Your task to perform on an android device: Go to location settings Image 0: 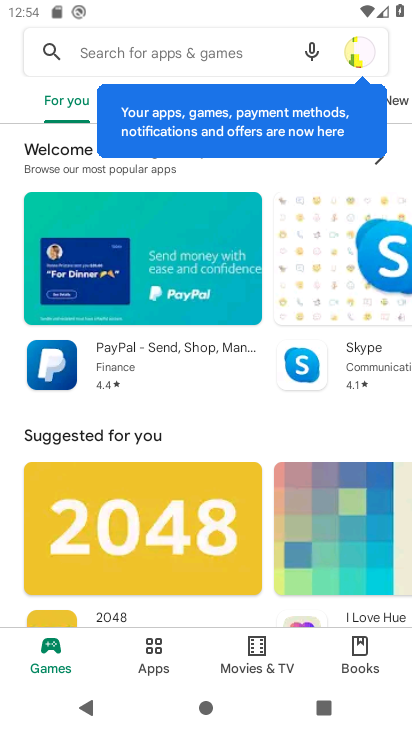
Step 0: press home button
Your task to perform on an android device: Go to location settings Image 1: 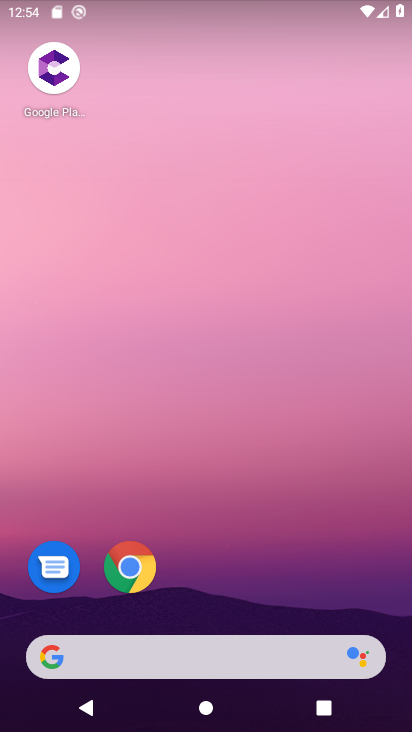
Step 1: drag from (250, 586) to (280, 182)
Your task to perform on an android device: Go to location settings Image 2: 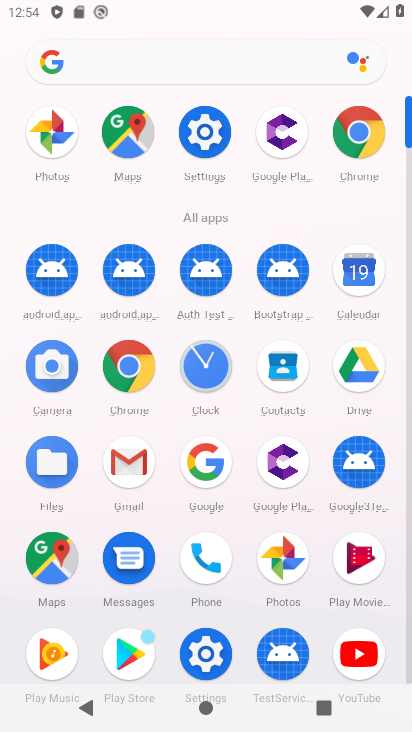
Step 2: click (216, 135)
Your task to perform on an android device: Go to location settings Image 3: 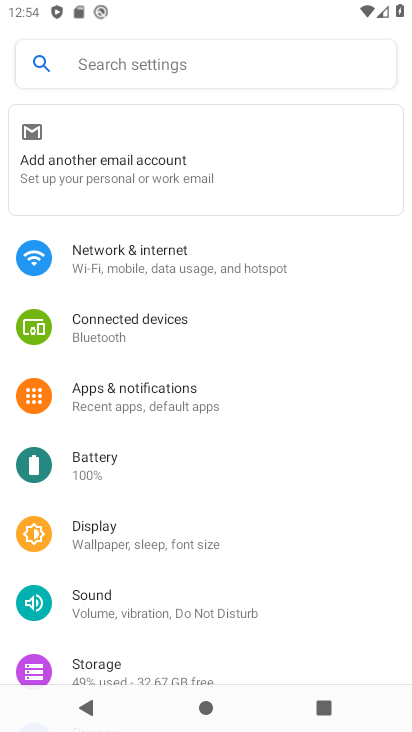
Step 3: drag from (215, 621) to (256, 118)
Your task to perform on an android device: Go to location settings Image 4: 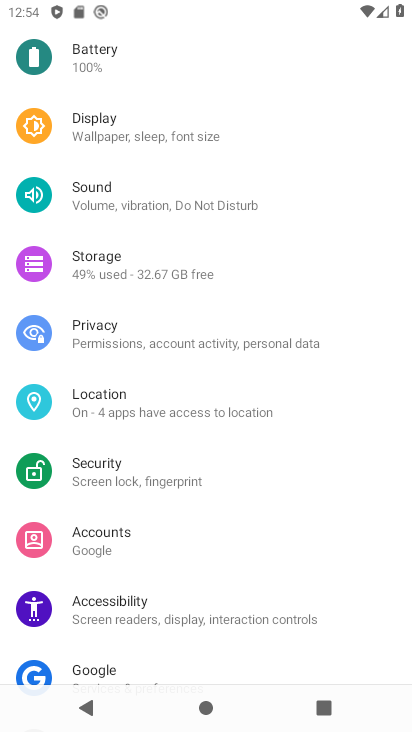
Step 4: drag from (156, 603) to (233, 170)
Your task to perform on an android device: Go to location settings Image 5: 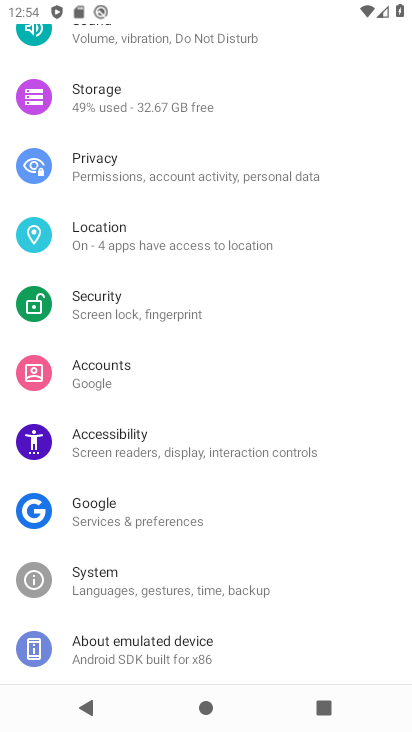
Step 5: drag from (291, 203) to (275, 449)
Your task to perform on an android device: Go to location settings Image 6: 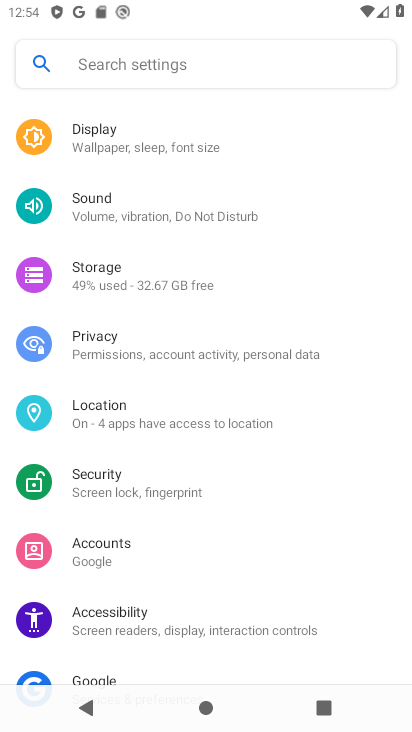
Step 6: click (184, 435)
Your task to perform on an android device: Go to location settings Image 7: 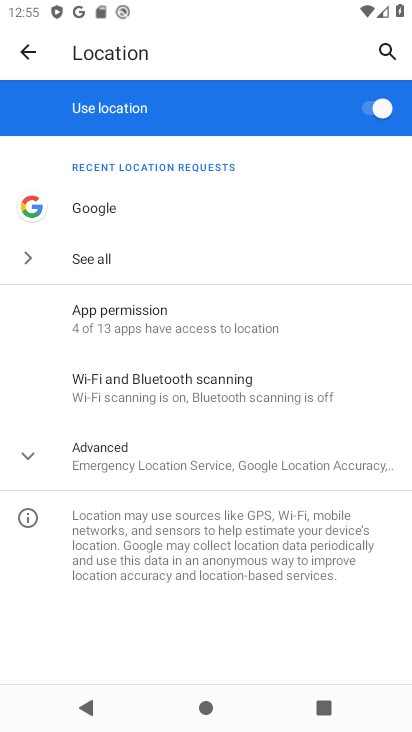
Step 7: task complete